Your task to perform on an android device: Open sound settings Image 0: 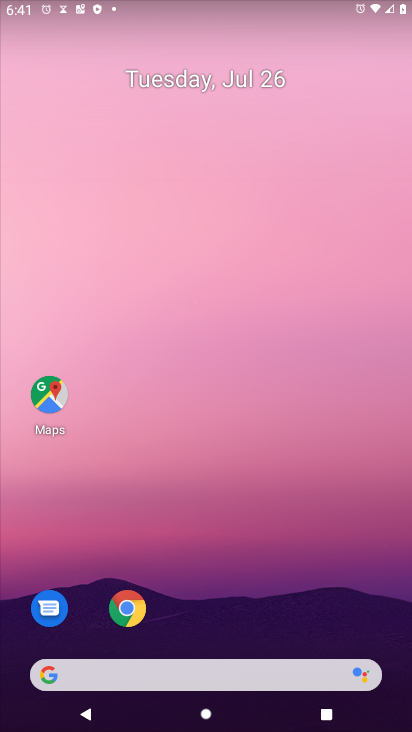
Step 0: press home button
Your task to perform on an android device: Open sound settings Image 1: 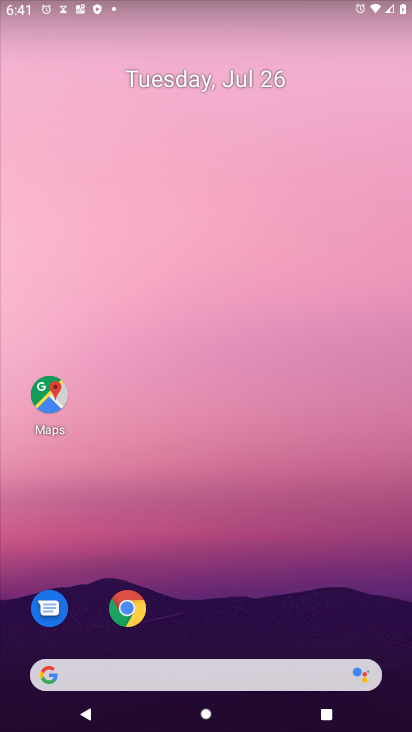
Step 1: drag from (200, 628) to (234, 3)
Your task to perform on an android device: Open sound settings Image 2: 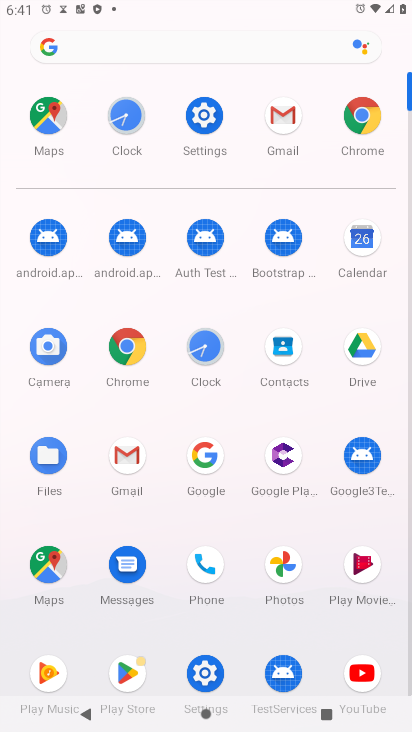
Step 2: click (190, 124)
Your task to perform on an android device: Open sound settings Image 3: 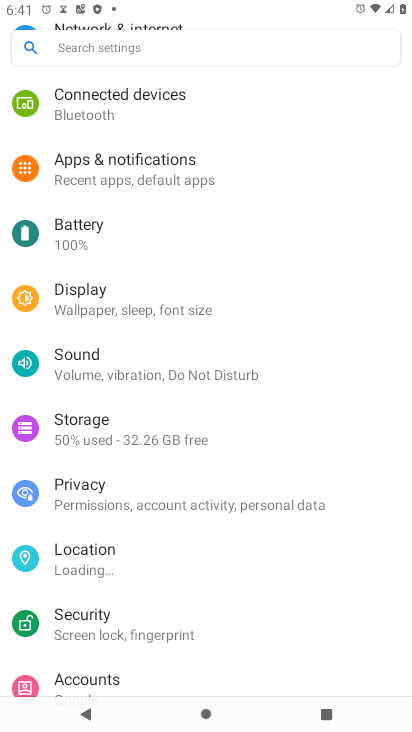
Step 3: click (85, 355)
Your task to perform on an android device: Open sound settings Image 4: 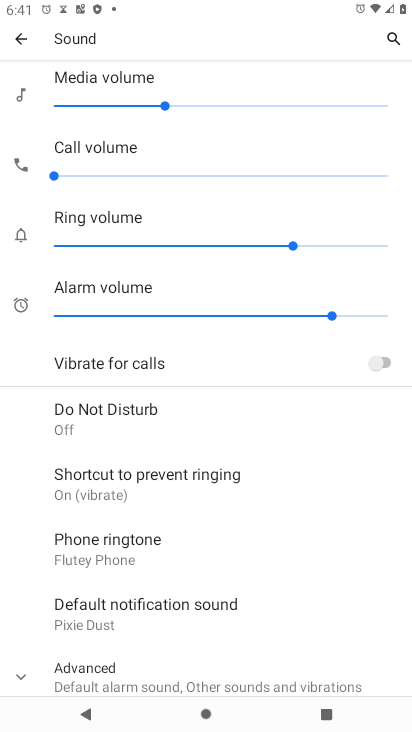
Step 4: task complete